Your task to perform on an android device: set default search engine in the chrome app Image 0: 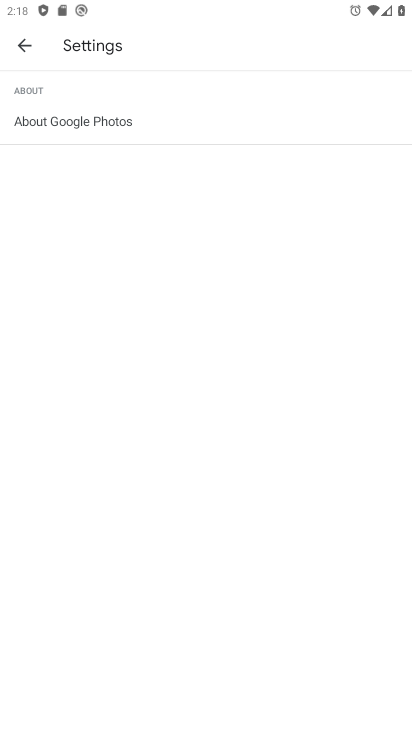
Step 0: press home button
Your task to perform on an android device: set default search engine in the chrome app Image 1: 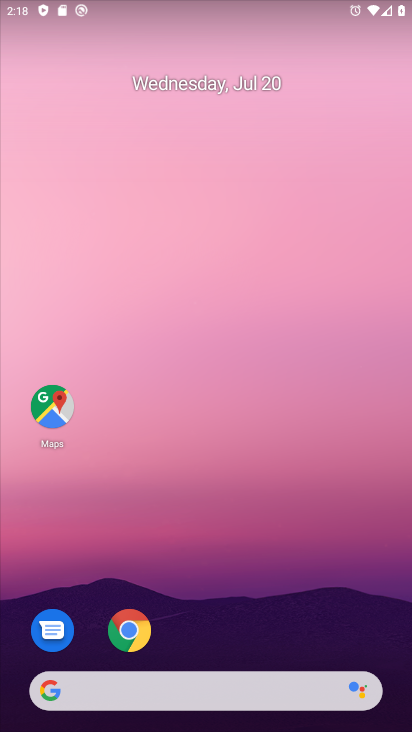
Step 1: click (136, 631)
Your task to perform on an android device: set default search engine in the chrome app Image 2: 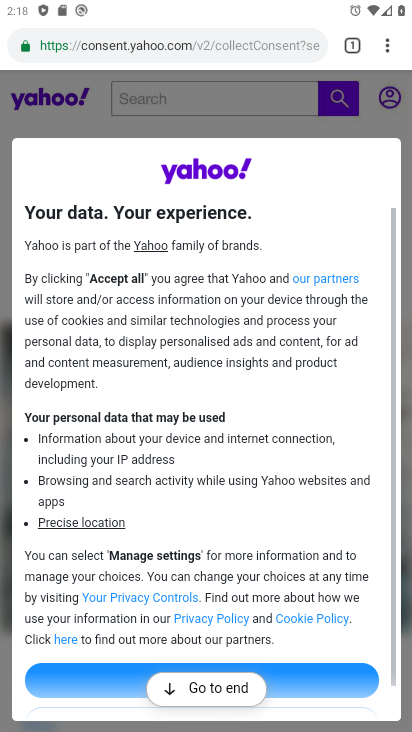
Step 2: click (340, 45)
Your task to perform on an android device: set default search engine in the chrome app Image 3: 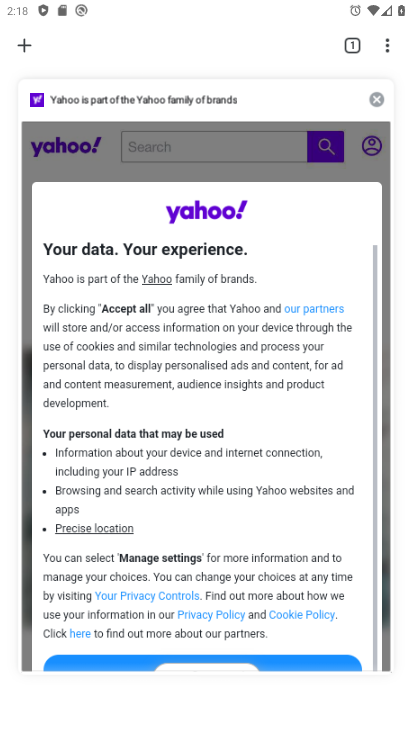
Step 3: click (375, 99)
Your task to perform on an android device: set default search engine in the chrome app Image 4: 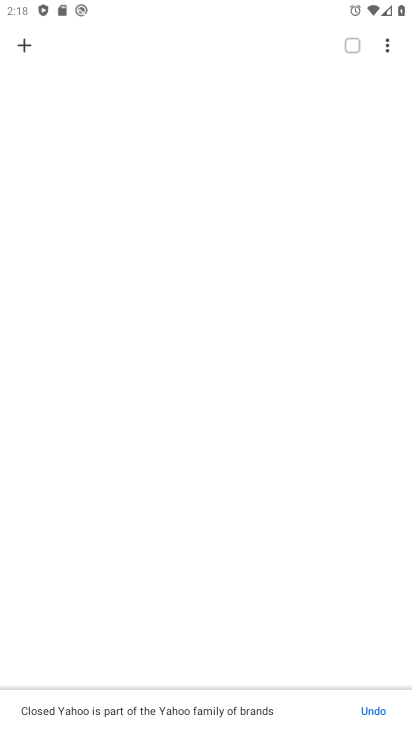
Step 4: click (26, 48)
Your task to perform on an android device: set default search engine in the chrome app Image 5: 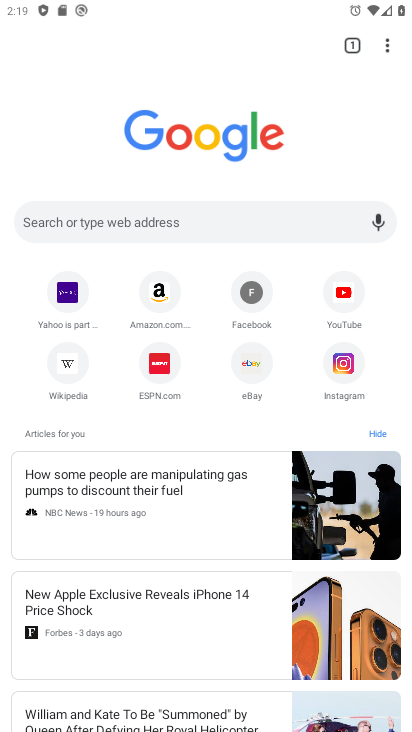
Step 5: click (385, 42)
Your task to perform on an android device: set default search engine in the chrome app Image 6: 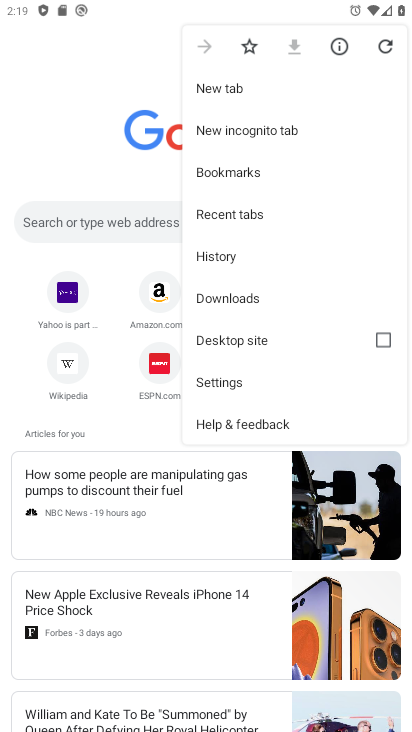
Step 6: click (241, 377)
Your task to perform on an android device: set default search engine in the chrome app Image 7: 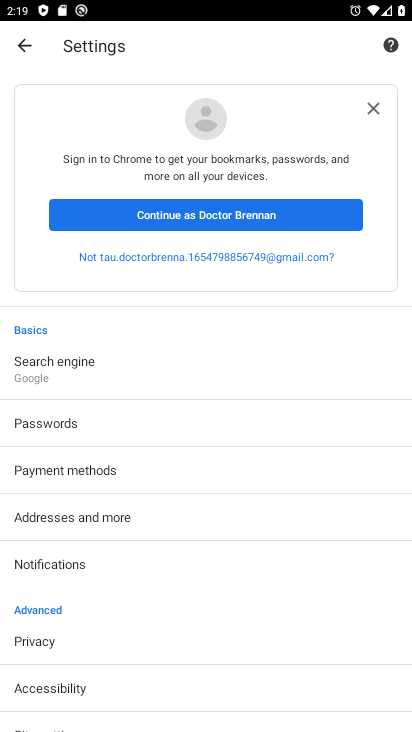
Step 7: drag from (13, 555) to (141, 326)
Your task to perform on an android device: set default search engine in the chrome app Image 8: 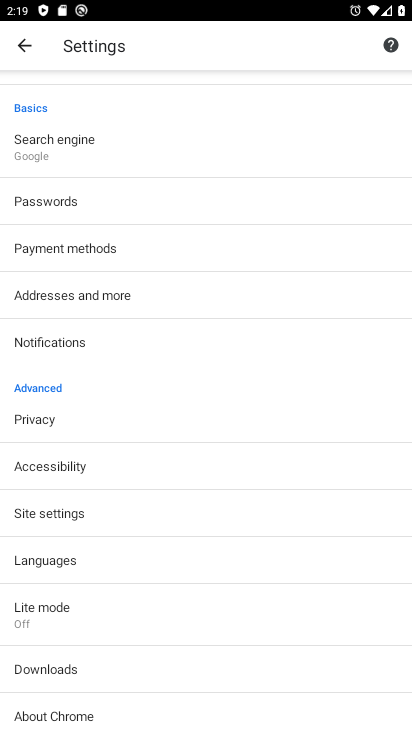
Step 8: click (95, 139)
Your task to perform on an android device: set default search engine in the chrome app Image 9: 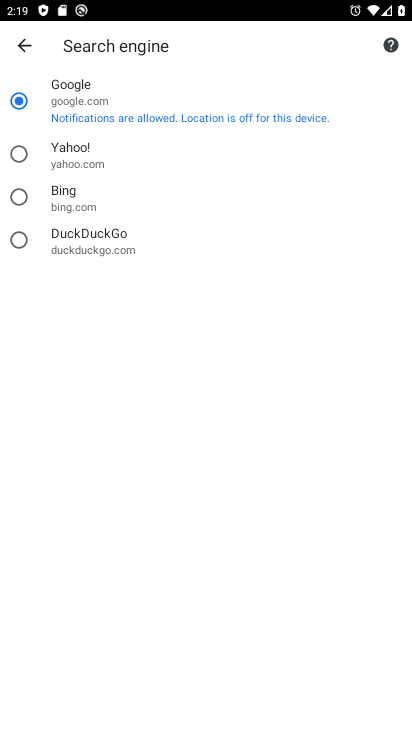
Step 9: click (69, 170)
Your task to perform on an android device: set default search engine in the chrome app Image 10: 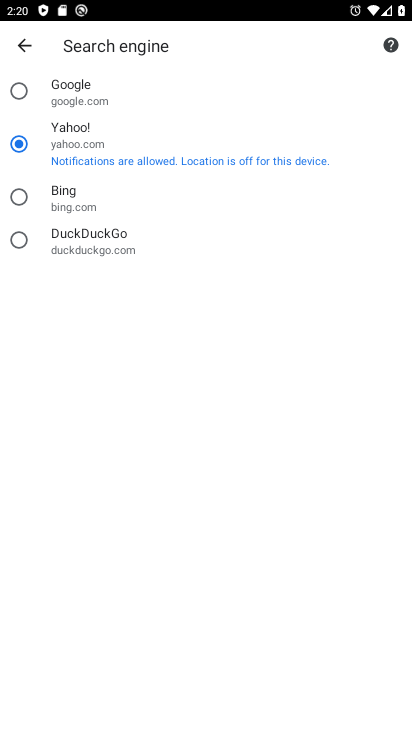
Step 10: task complete